Your task to perform on an android device: Show me productivity apps on the Play Store Image 0: 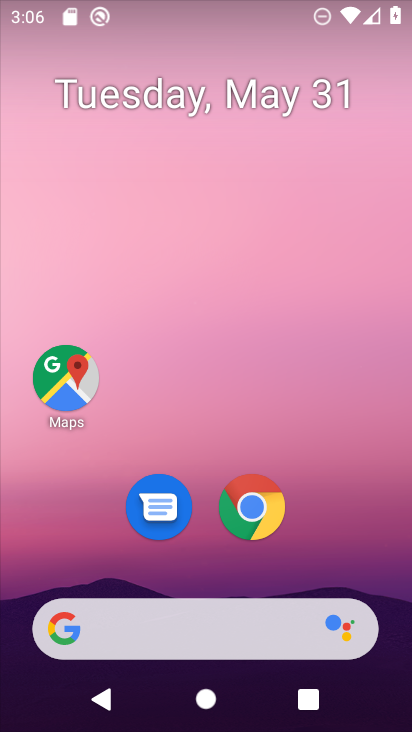
Step 0: drag from (215, 452) to (274, 0)
Your task to perform on an android device: Show me productivity apps on the Play Store Image 1: 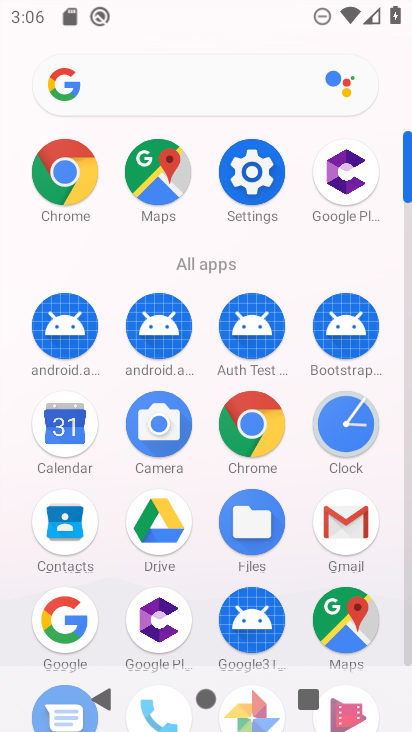
Step 1: drag from (111, 583) to (148, 302)
Your task to perform on an android device: Show me productivity apps on the Play Store Image 2: 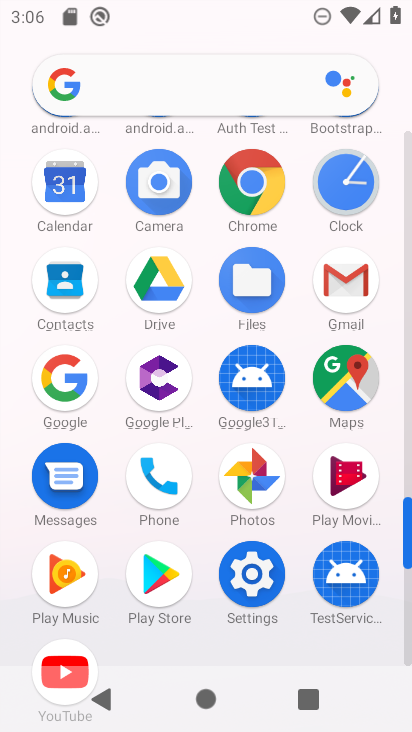
Step 2: click (151, 594)
Your task to perform on an android device: Show me productivity apps on the Play Store Image 3: 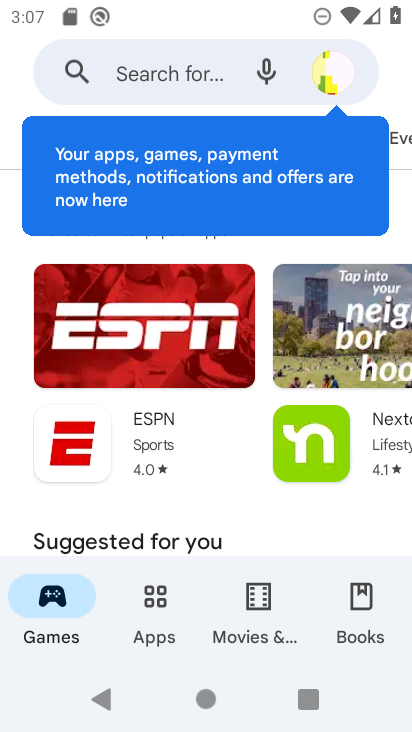
Step 3: click (156, 620)
Your task to perform on an android device: Show me productivity apps on the Play Store Image 4: 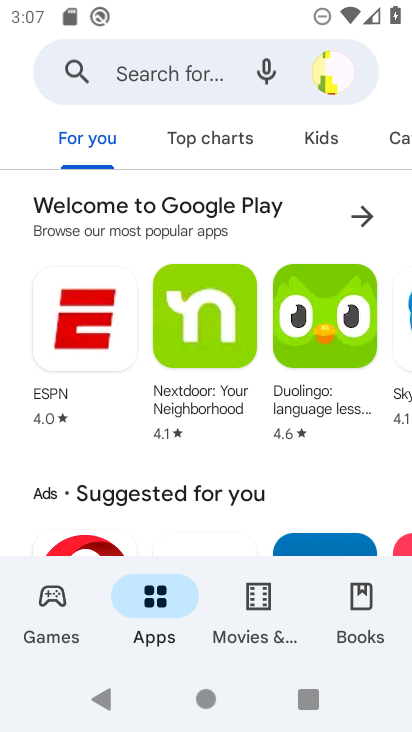
Step 4: click (397, 145)
Your task to perform on an android device: Show me productivity apps on the Play Store Image 5: 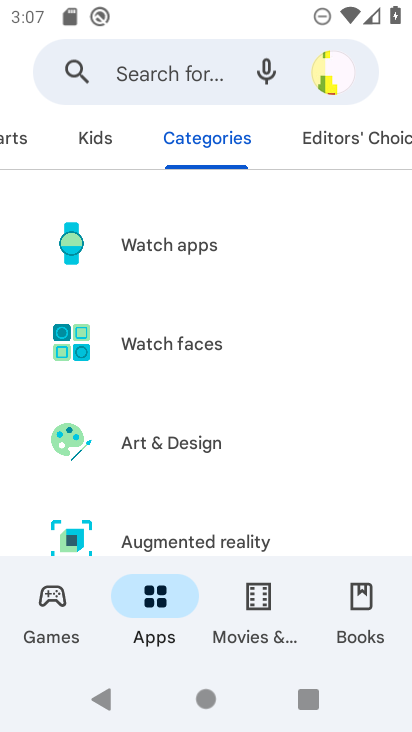
Step 5: drag from (281, 525) to (287, 169)
Your task to perform on an android device: Show me productivity apps on the Play Store Image 6: 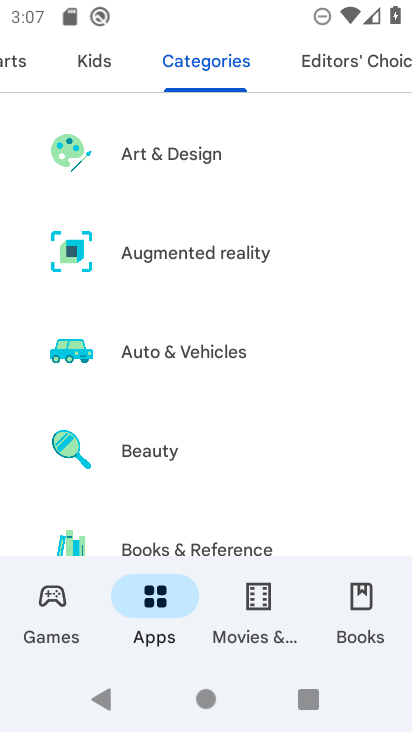
Step 6: drag from (321, 543) to (290, 123)
Your task to perform on an android device: Show me productivity apps on the Play Store Image 7: 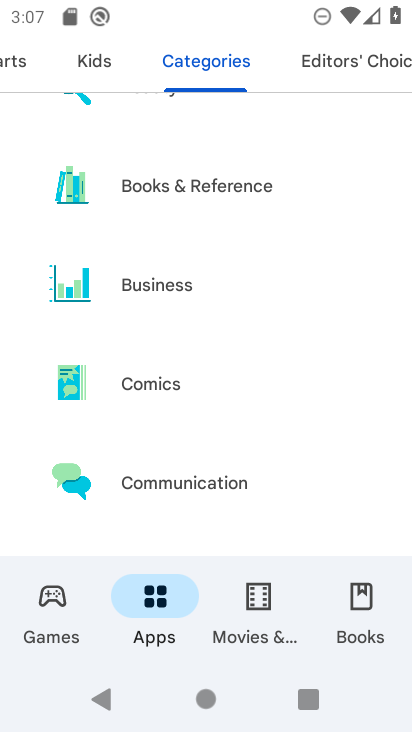
Step 7: drag from (298, 522) to (283, 171)
Your task to perform on an android device: Show me productivity apps on the Play Store Image 8: 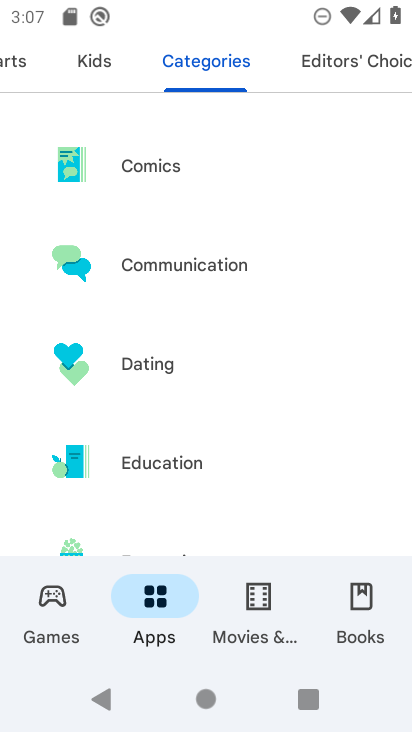
Step 8: drag from (297, 482) to (301, 146)
Your task to perform on an android device: Show me productivity apps on the Play Store Image 9: 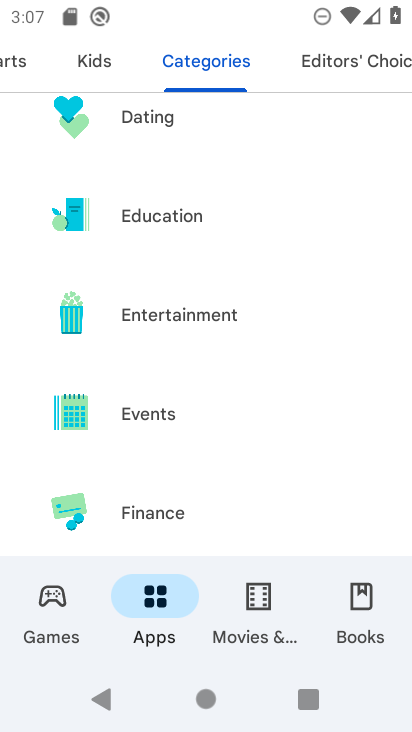
Step 9: drag from (226, 520) to (253, 149)
Your task to perform on an android device: Show me productivity apps on the Play Store Image 10: 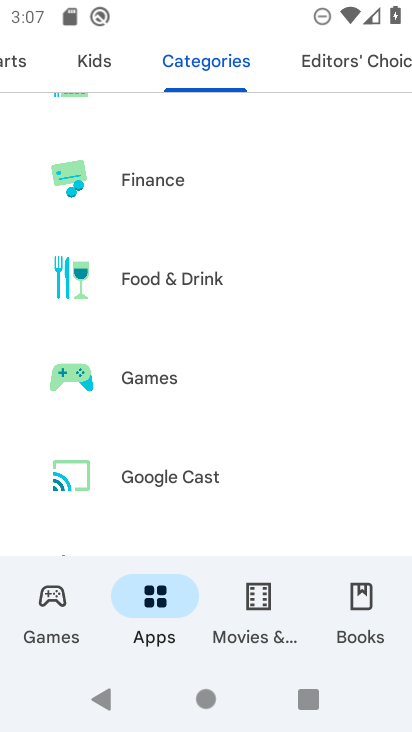
Step 10: drag from (267, 511) to (271, 160)
Your task to perform on an android device: Show me productivity apps on the Play Store Image 11: 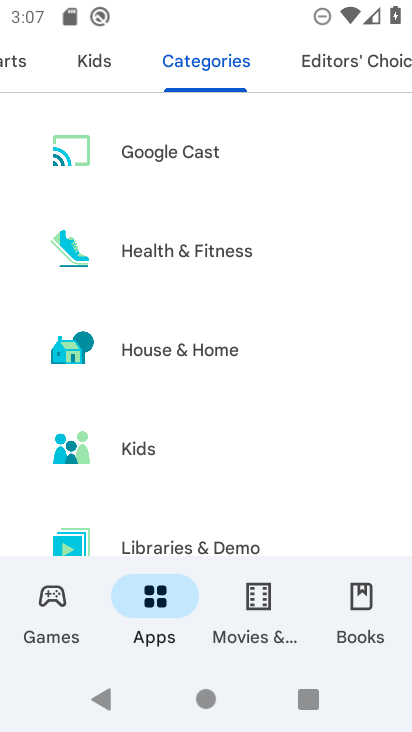
Step 11: drag from (238, 518) to (258, 171)
Your task to perform on an android device: Show me productivity apps on the Play Store Image 12: 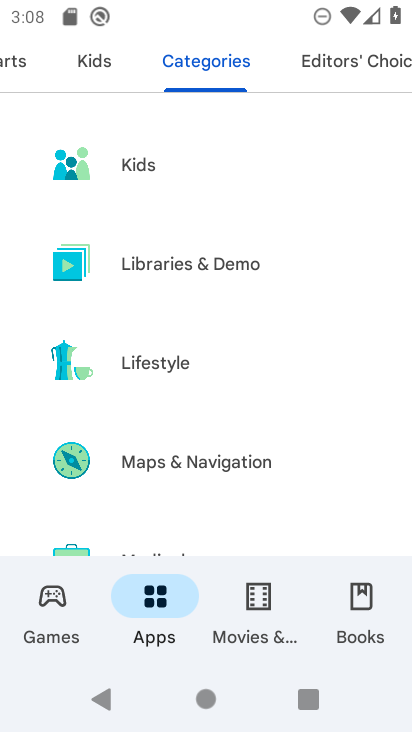
Step 12: drag from (285, 505) to (296, 167)
Your task to perform on an android device: Show me productivity apps on the Play Store Image 13: 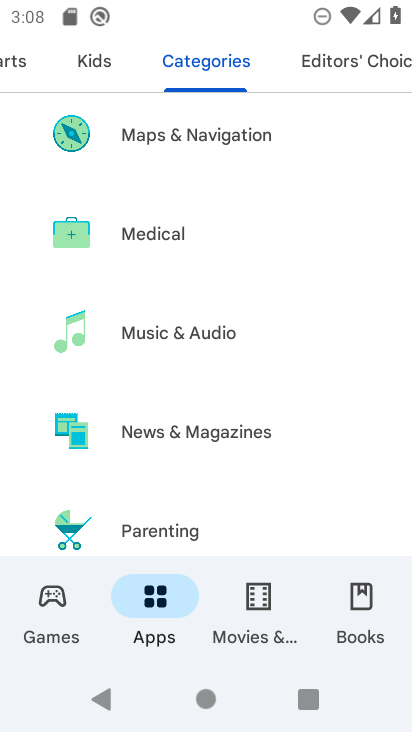
Step 13: drag from (237, 515) to (287, 191)
Your task to perform on an android device: Show me productivity apps on the Play Store Image 14: 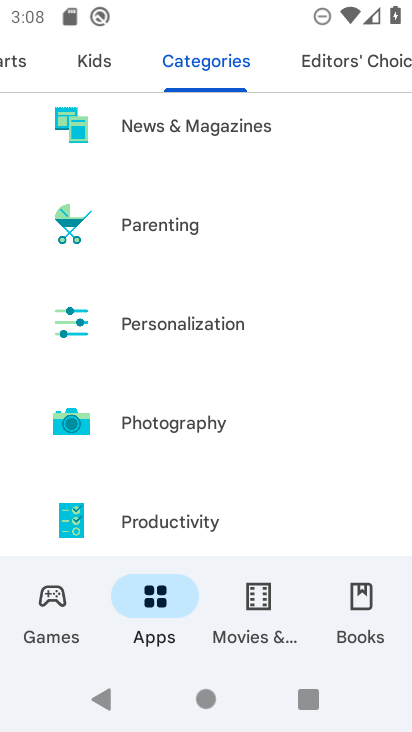
Step 14: click (176, 526)
Your task to perform on an android device: Show me productivity apps on the Play Store Image 15: 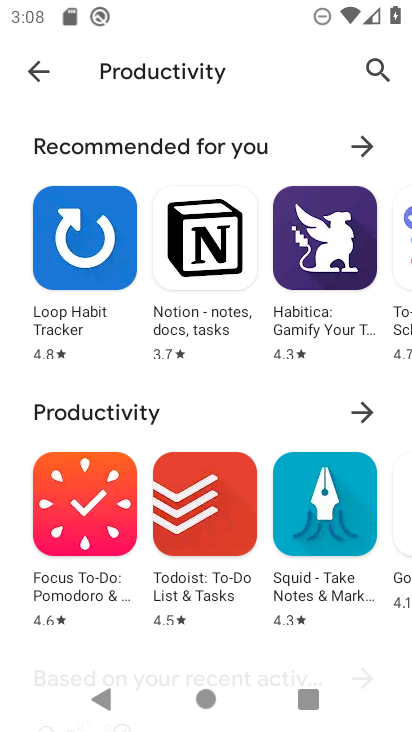
Step 15: task complete